Your task to perform on an android device: Go to internet settings Image 0: 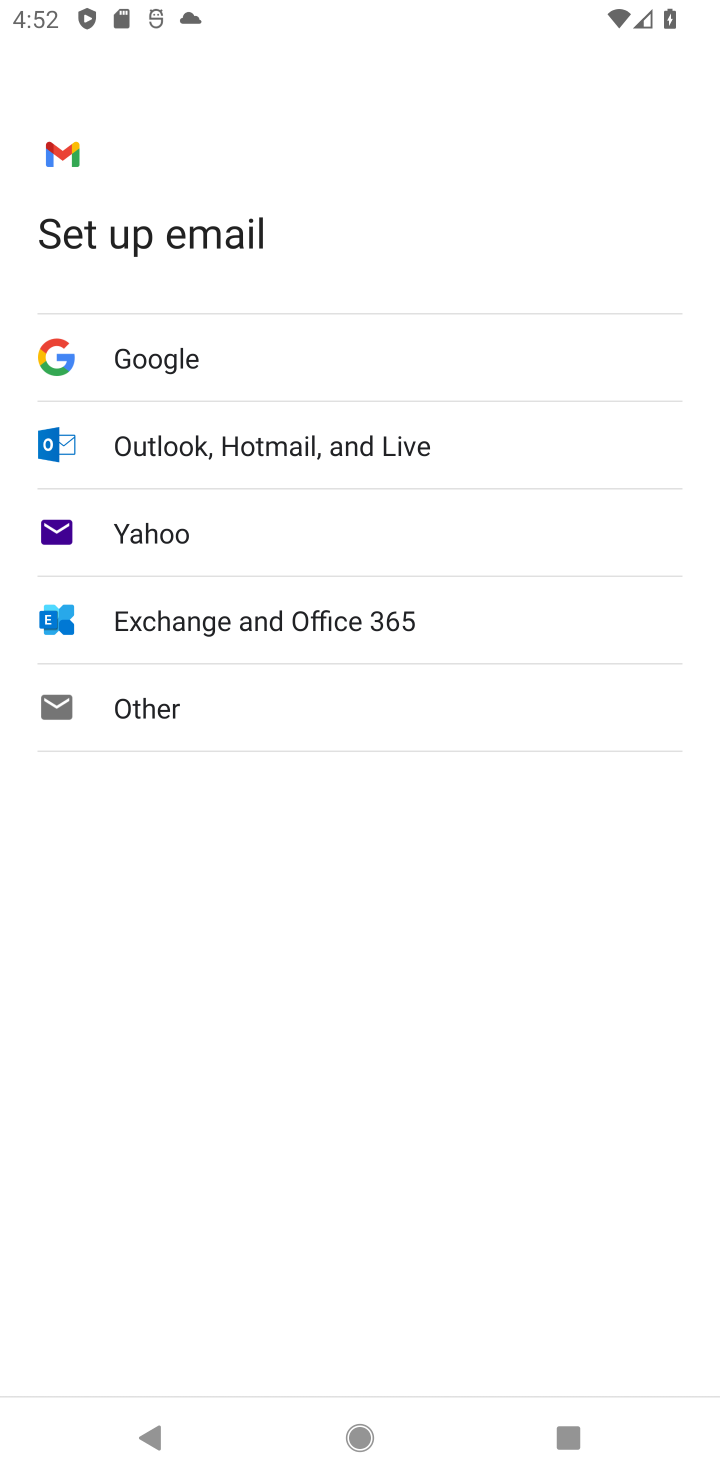
Step 0: drag from (400, 1199) to (425, 644)
Your task to perform on an android device: Go to internet settings Image 1: 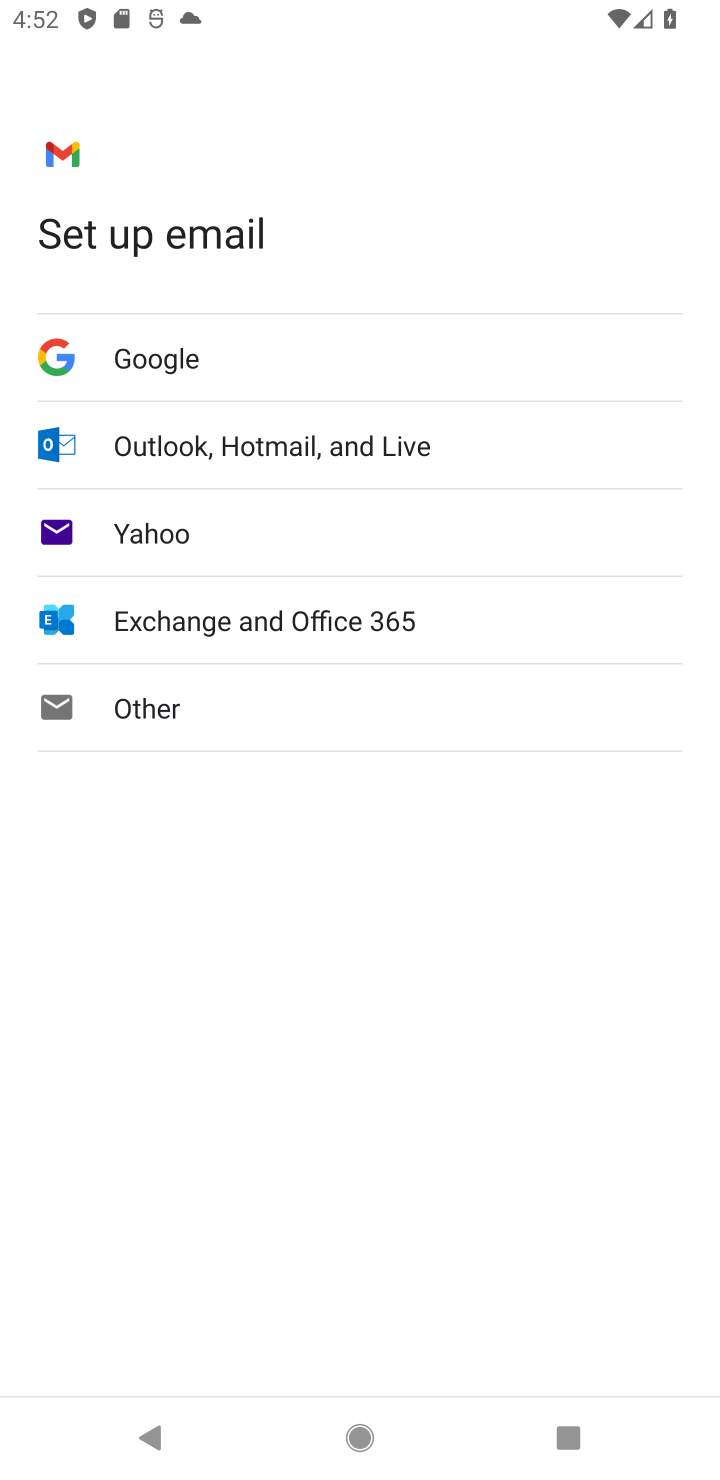
Step 1: press home button
Your task to perform on an android device: Go to internet settings Image 2: 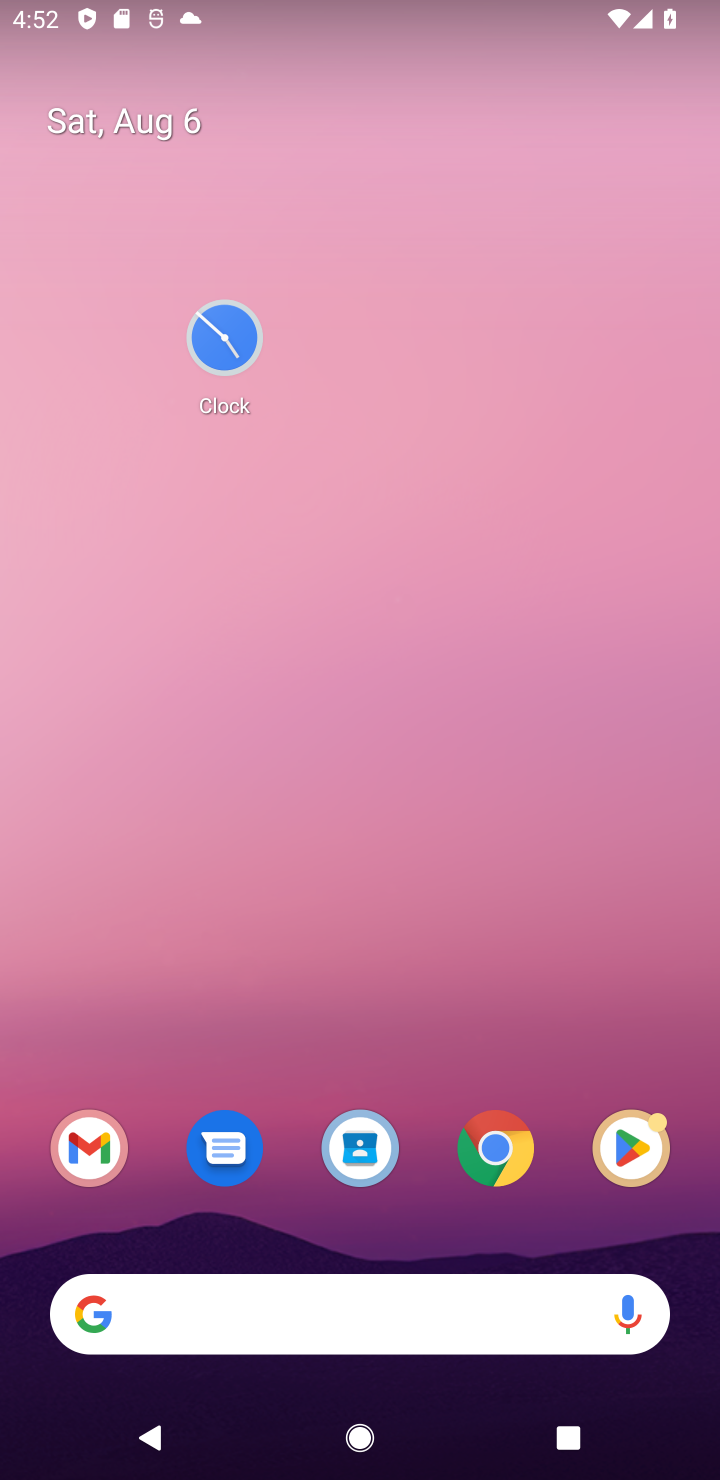
Step 2: drag from (305, 930) to (449, 337)
Your task to perform on an android device: Go to internet settings Image 3: 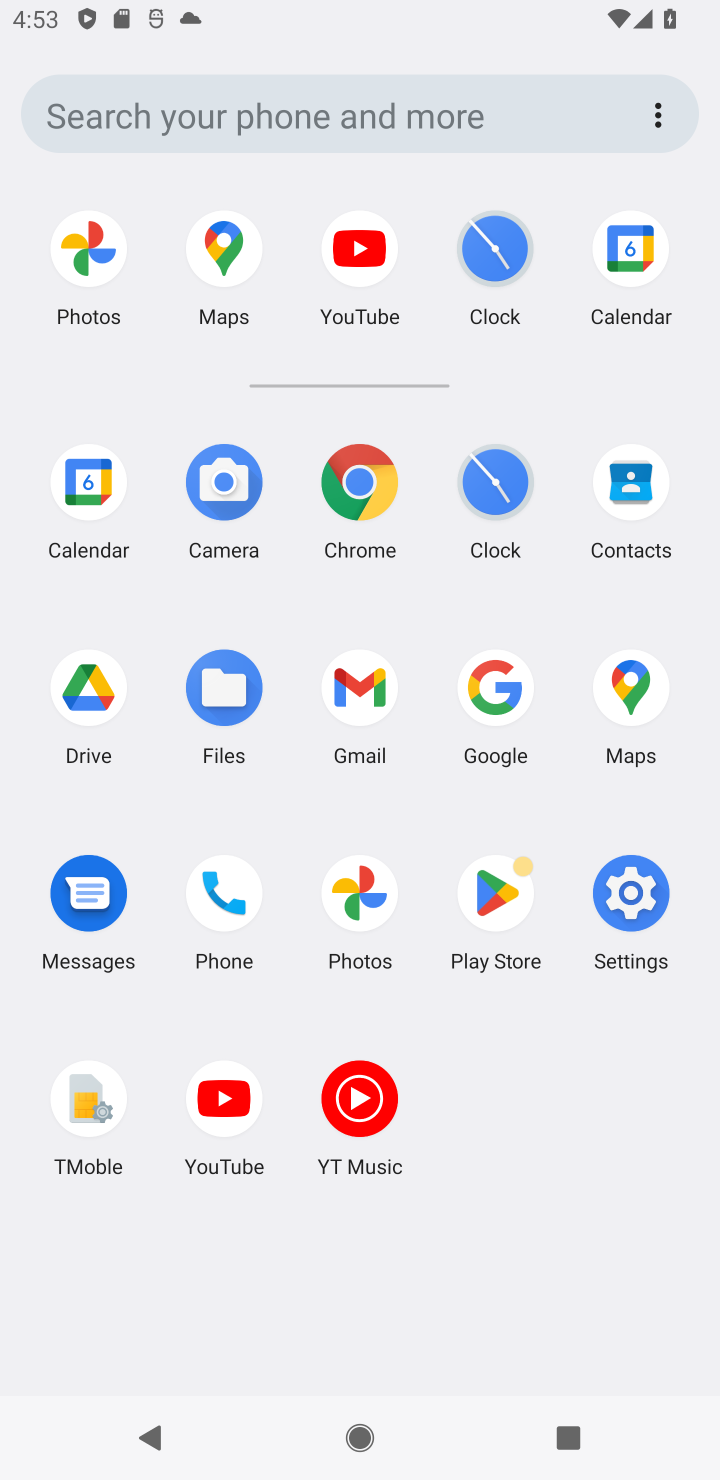
Step 3: drag from (285, 1209) to (346, 531)
Your task to perform on an android device: Go to internet settings Image 4: 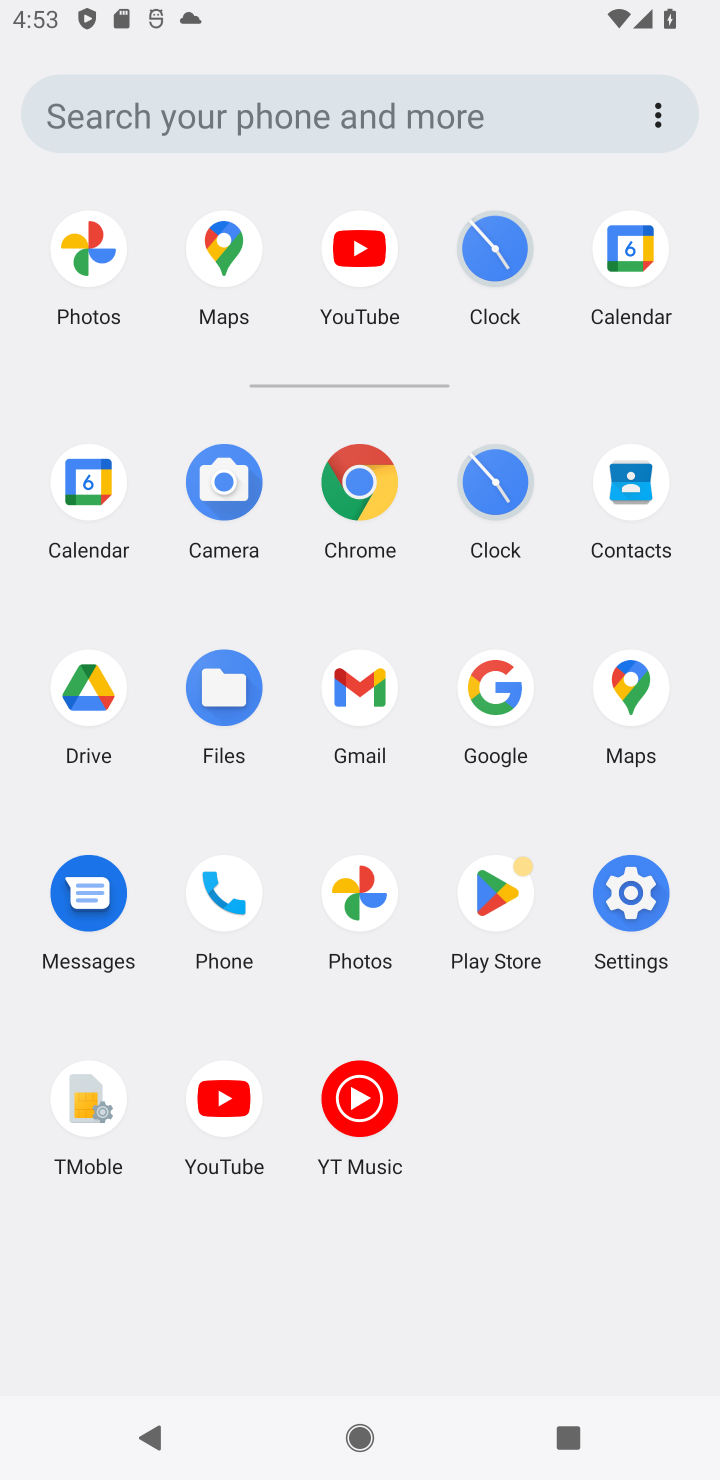
Step 4: click (618, 915)
Your task to perform on an android device: Go to internet settings Image 5: 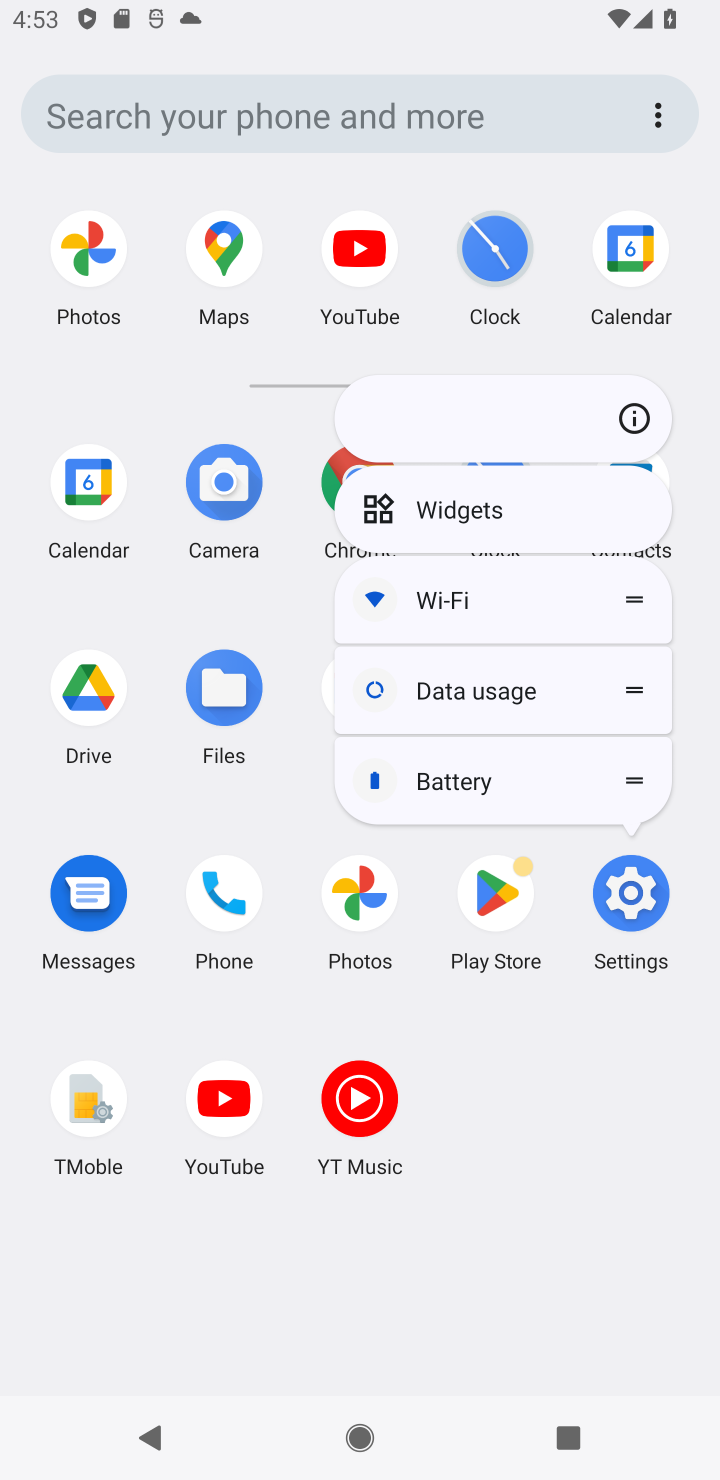
Step 5: click (620, 421)
Your task to perform on an android device: Go to internet settings Image 6: 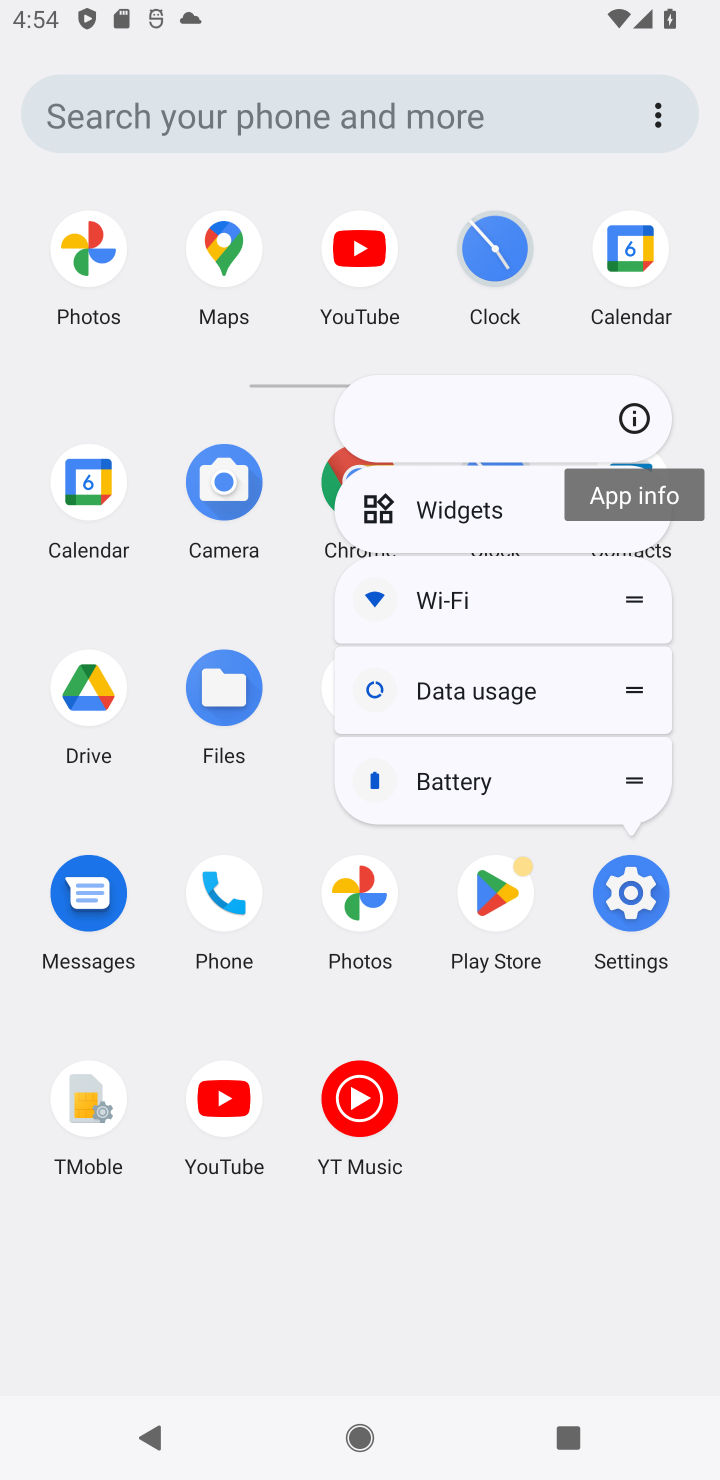
Step 6: click (620, 421)
Your task to perform on an android device: Go to internet settings Image 7: 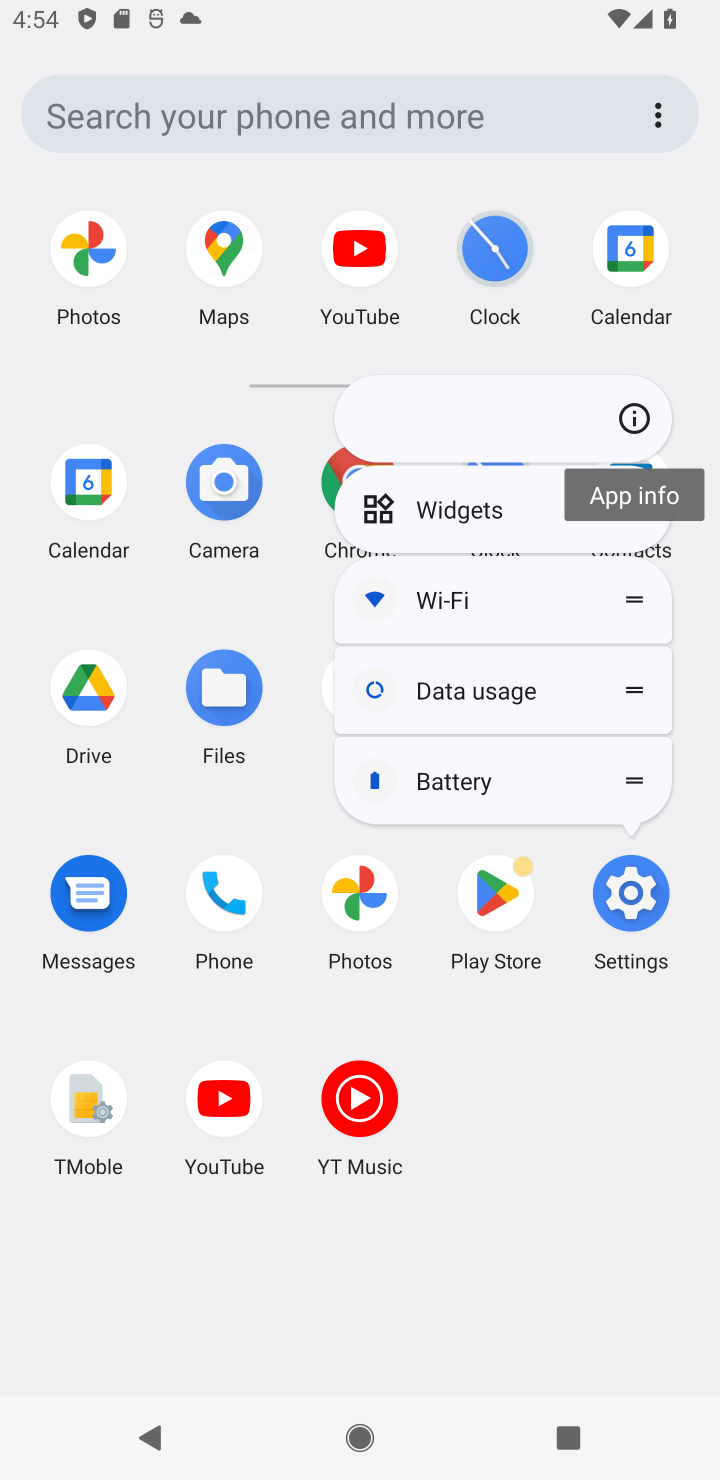
Step 7: click (622, 421)
Your task to perform on an android device: Go to internet settings Image 8: 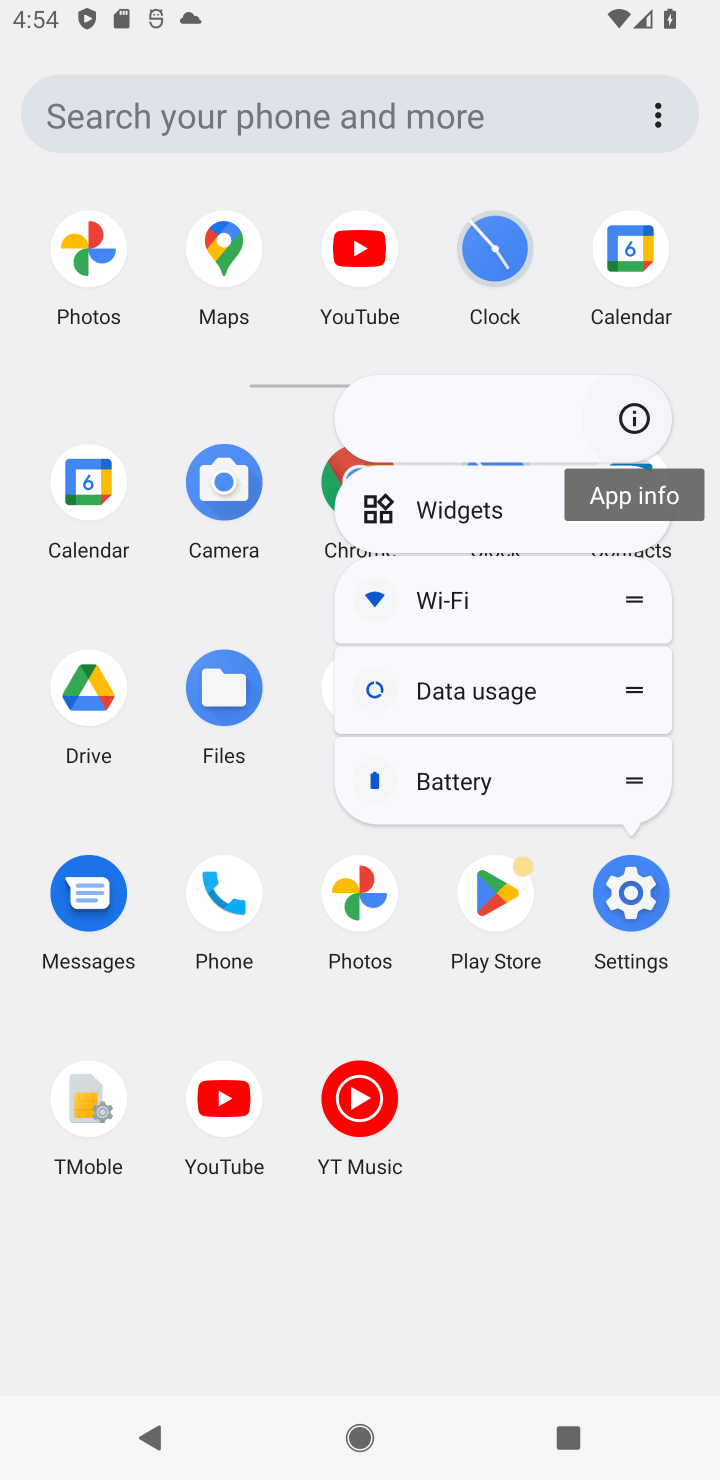
Step 8: click (624, 423)
Your task to perform on an android device: Go to internet settings Image 9: 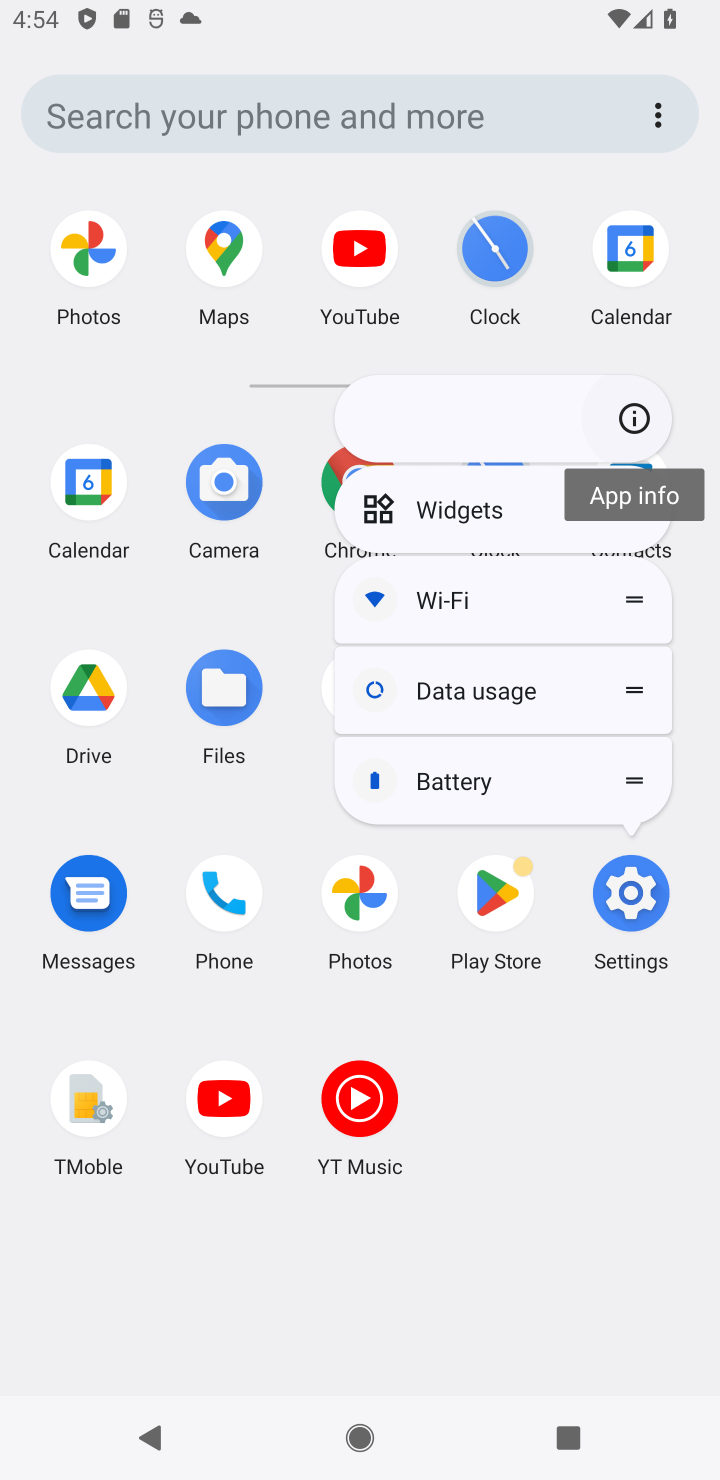
Step 9: click (614, 427)
Your task to perform on an android device: Go to internet settings Image 10: 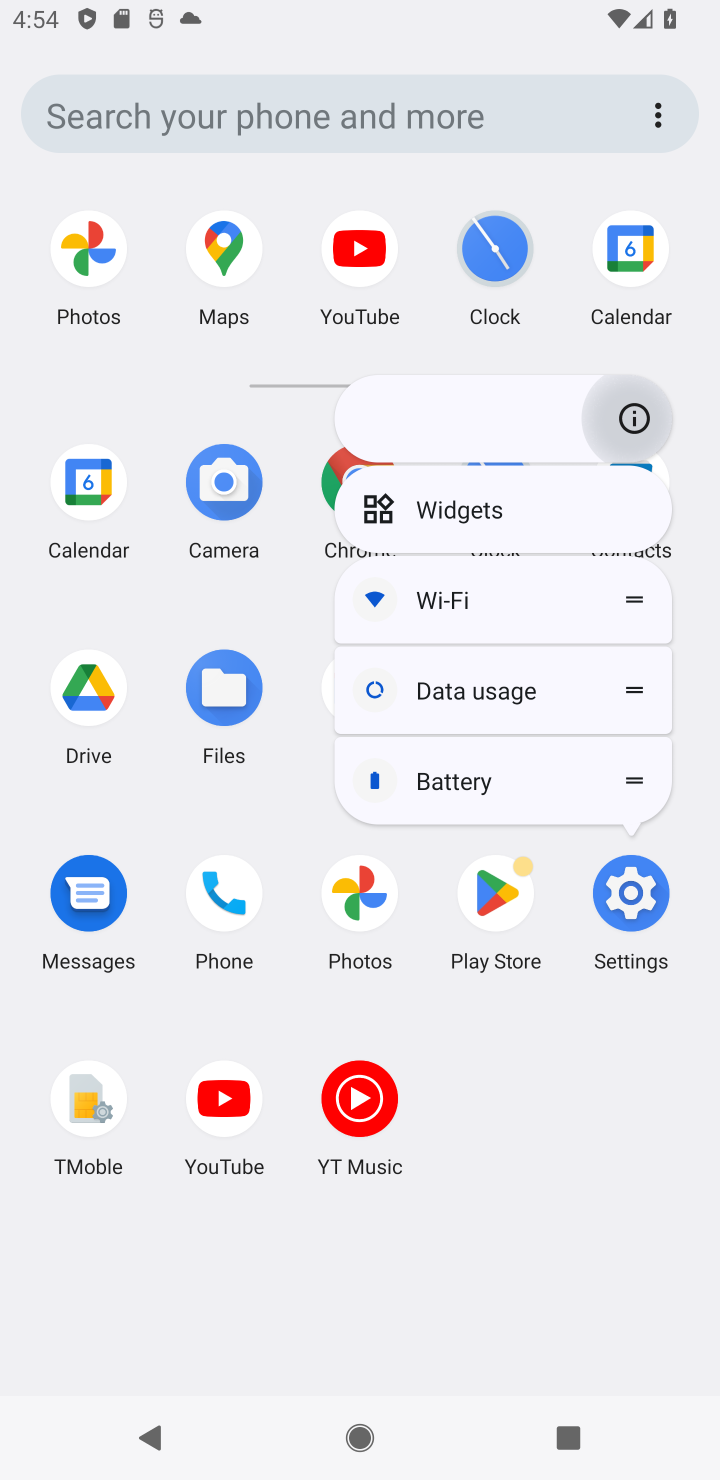
Step 10: click (621, 875)
Your task to perform on an android device: Go to internet settings Image 11: 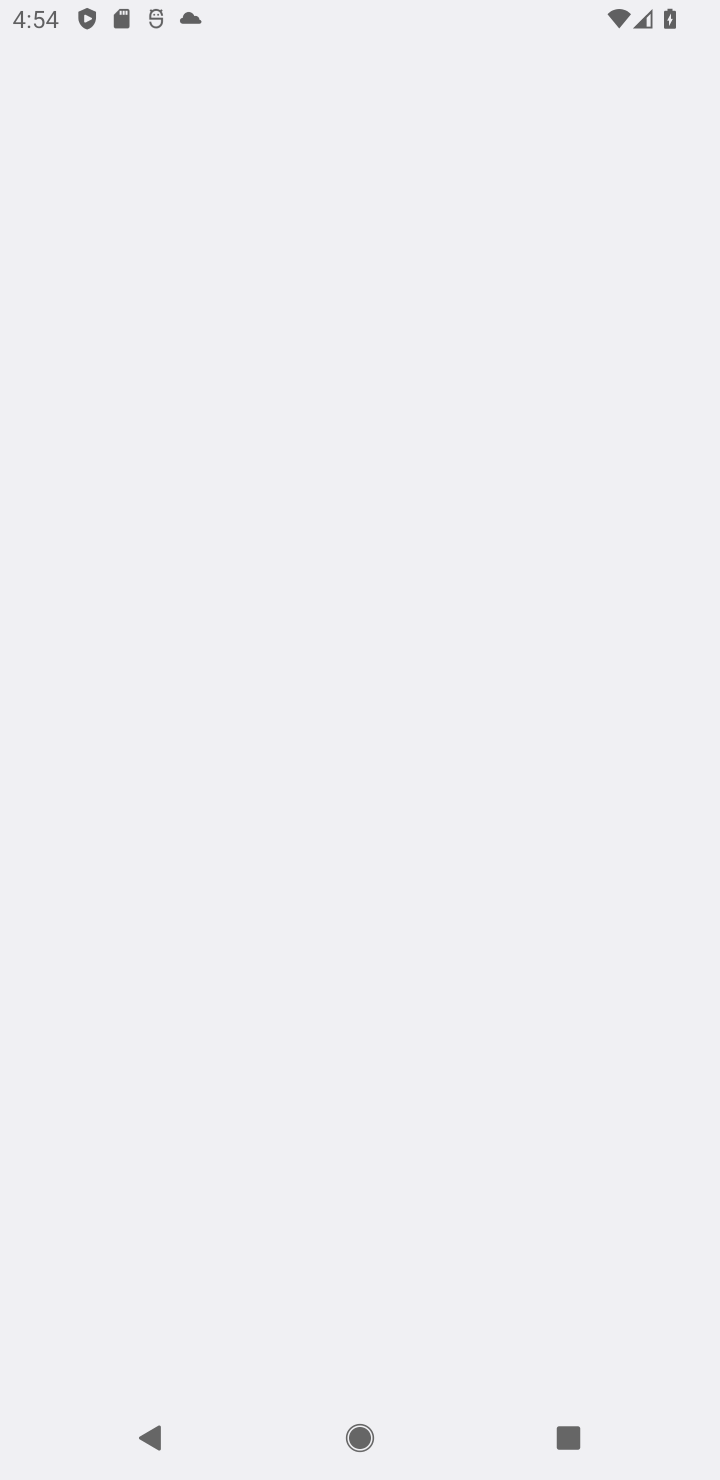
Step 11: click (630, 884)
Your task to perform on an android device: Go to internet settings Image 12: 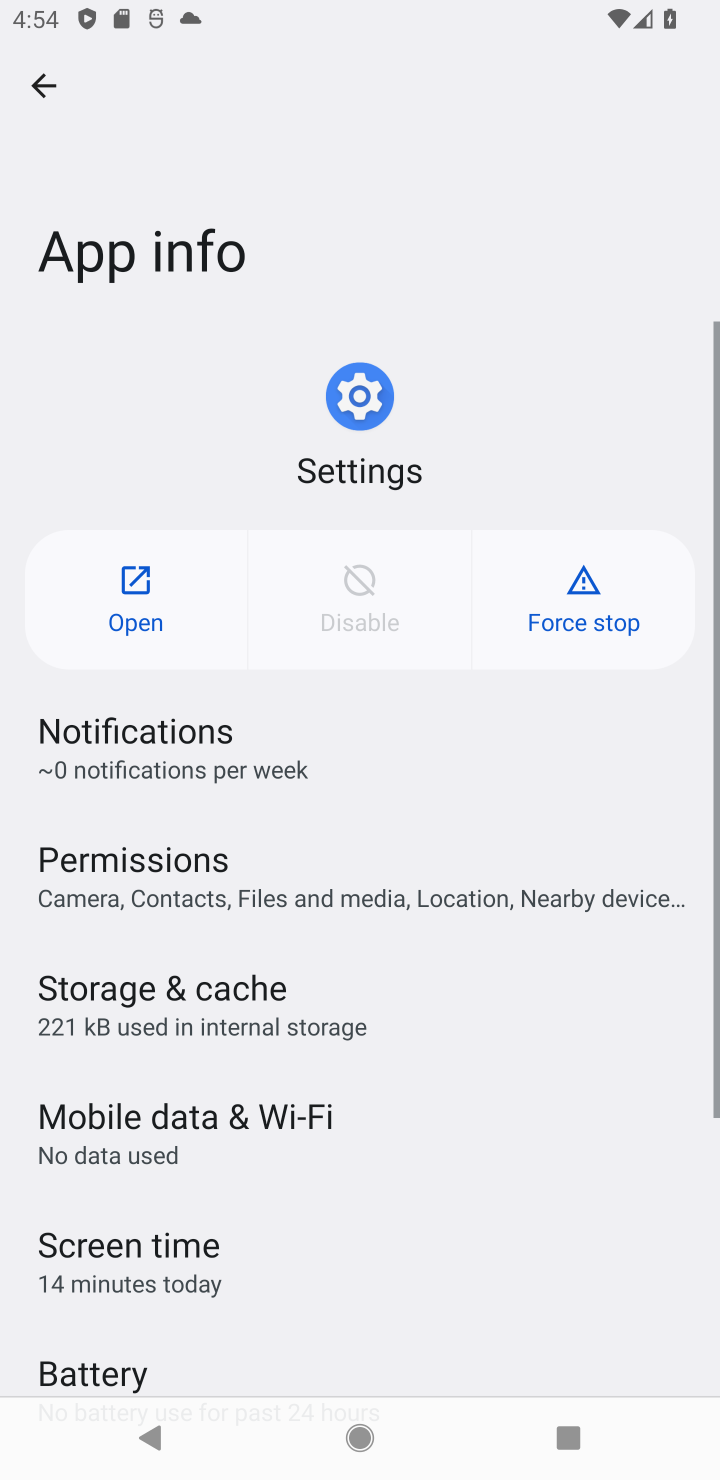
Step 12: drag from (289, 389) to (212, 1248)
Your task to perform on an android device: Go to internet settings Image 13: 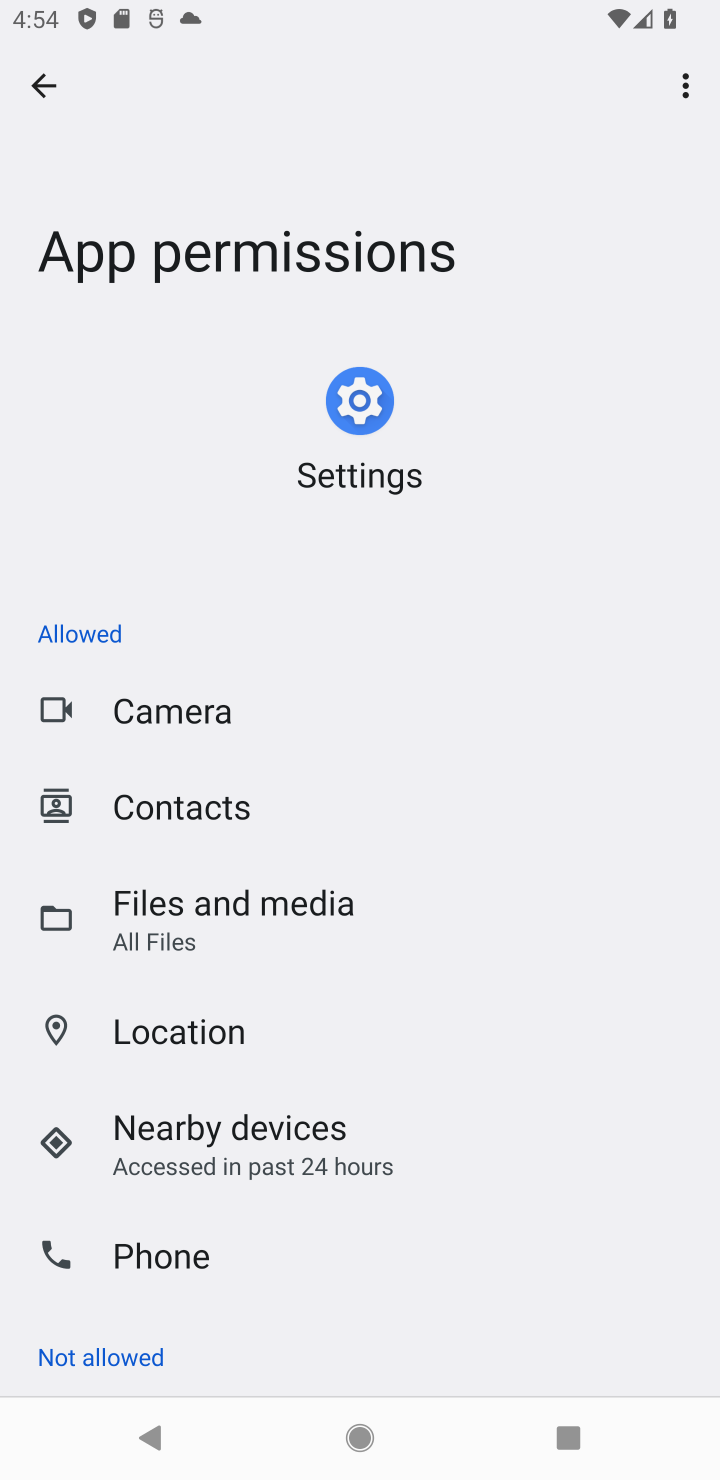
Step 13: press back button
Your task to perform on an android device: Go to internet settings Image 14: 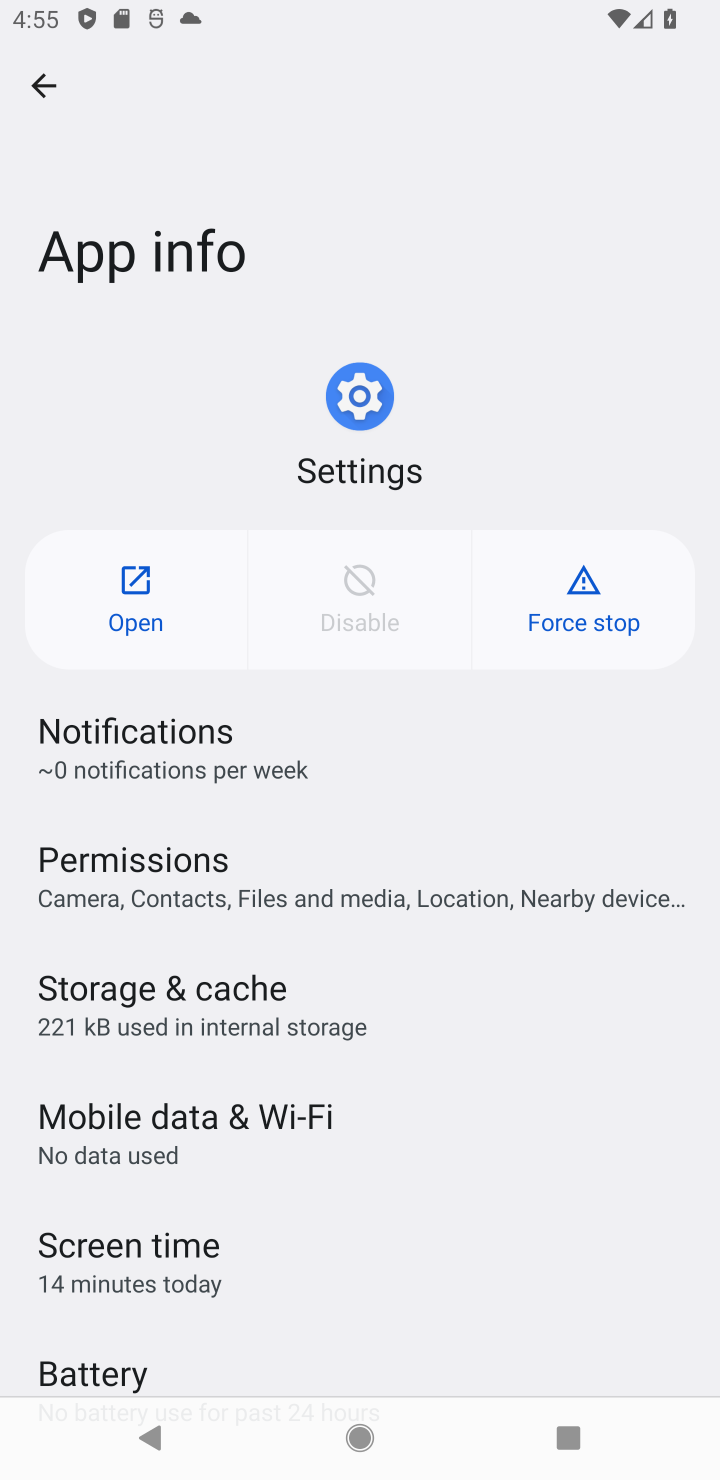
Step 14: click (106, 602)
Your task to perform on an android device: Go to internet settings Image 15: 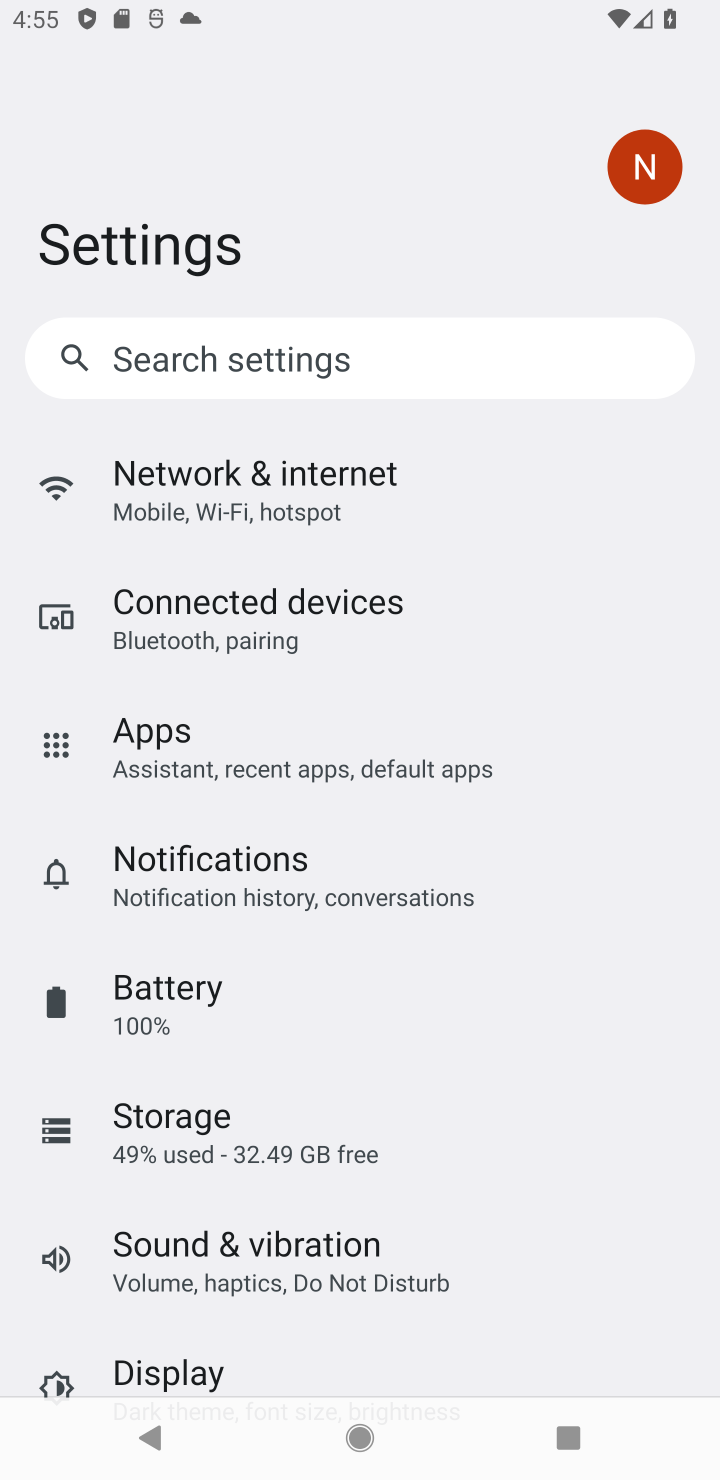
Step 15: drag from (401, 833) to (478, 188)
Your task to perform on an android device: Go to internet settings Image 16: 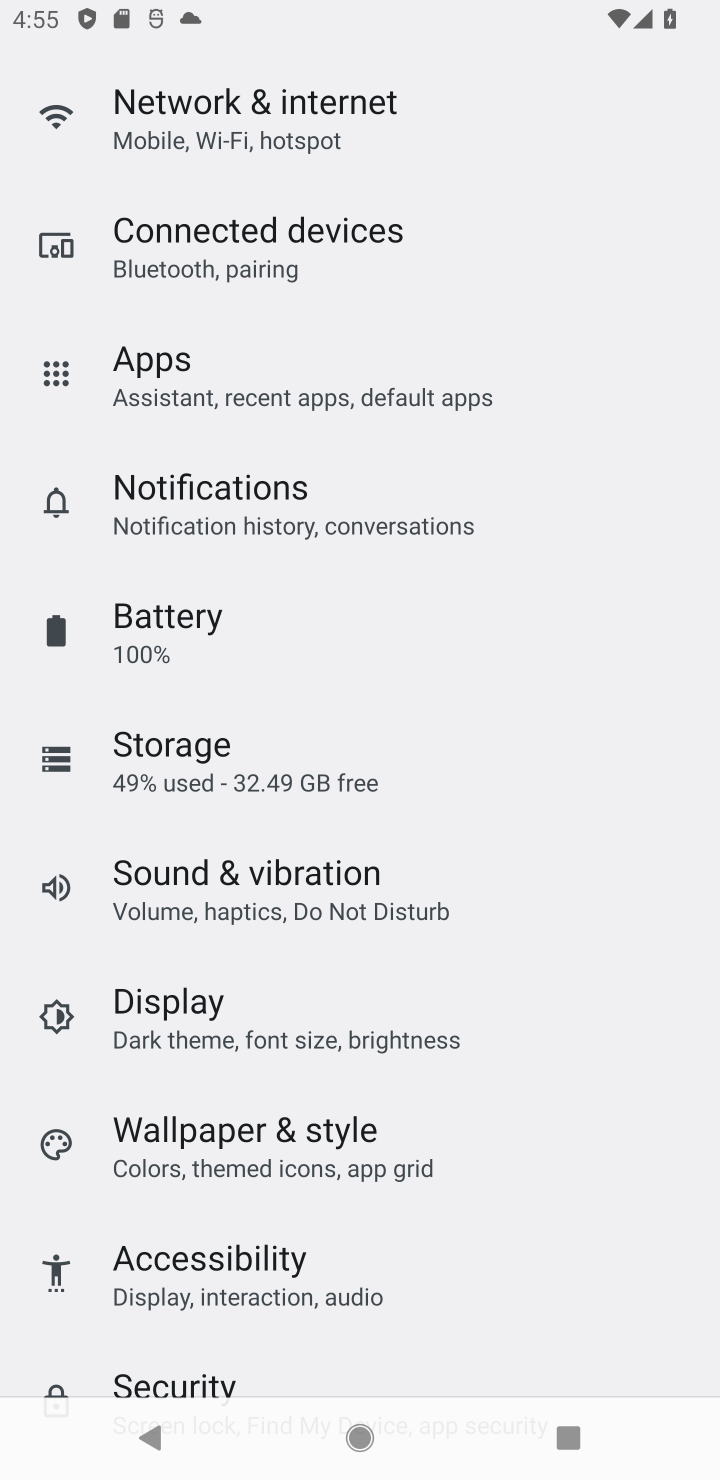
Step 16: click (251, 122)
Your task to perform on an android device: Go to internet settings Image 17: 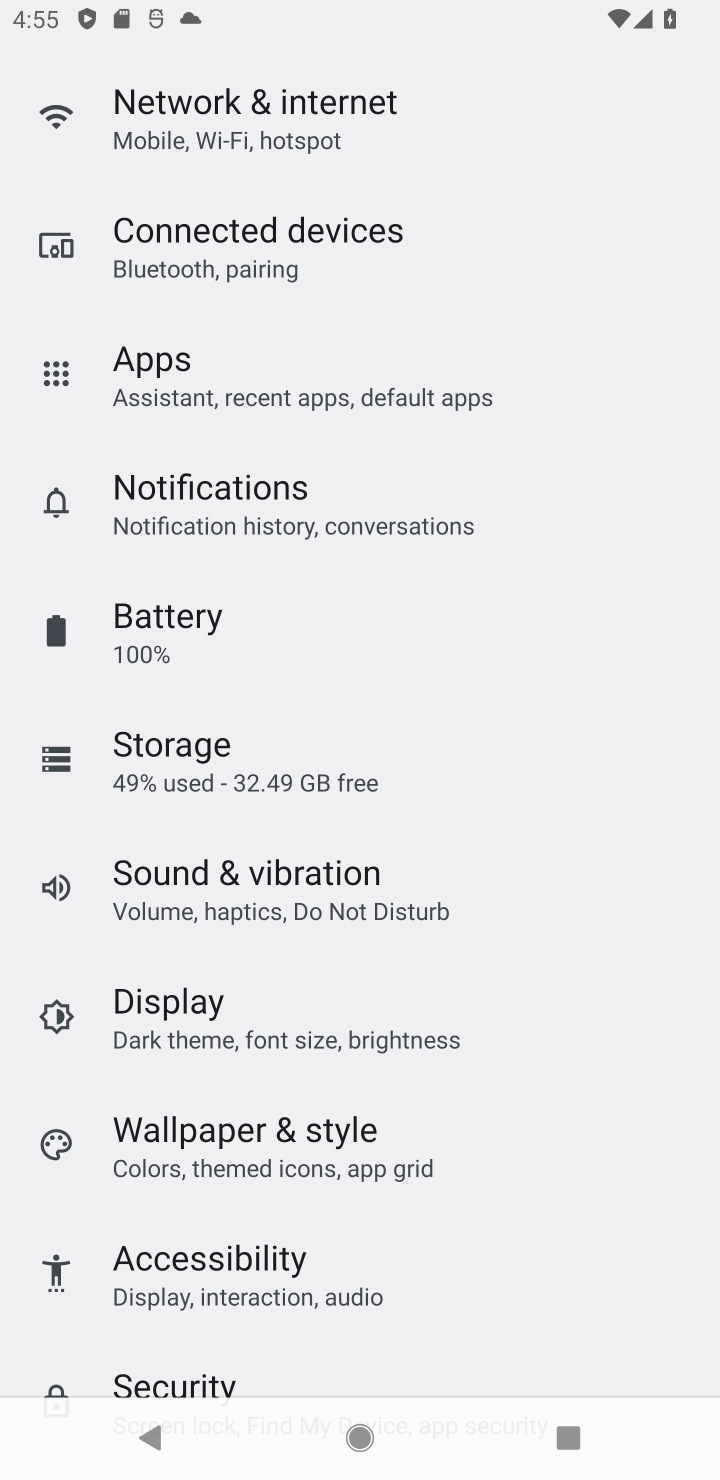
Step 17: click (251, 122)
Your task to perform on an android device: Go to internet settings Image 18: 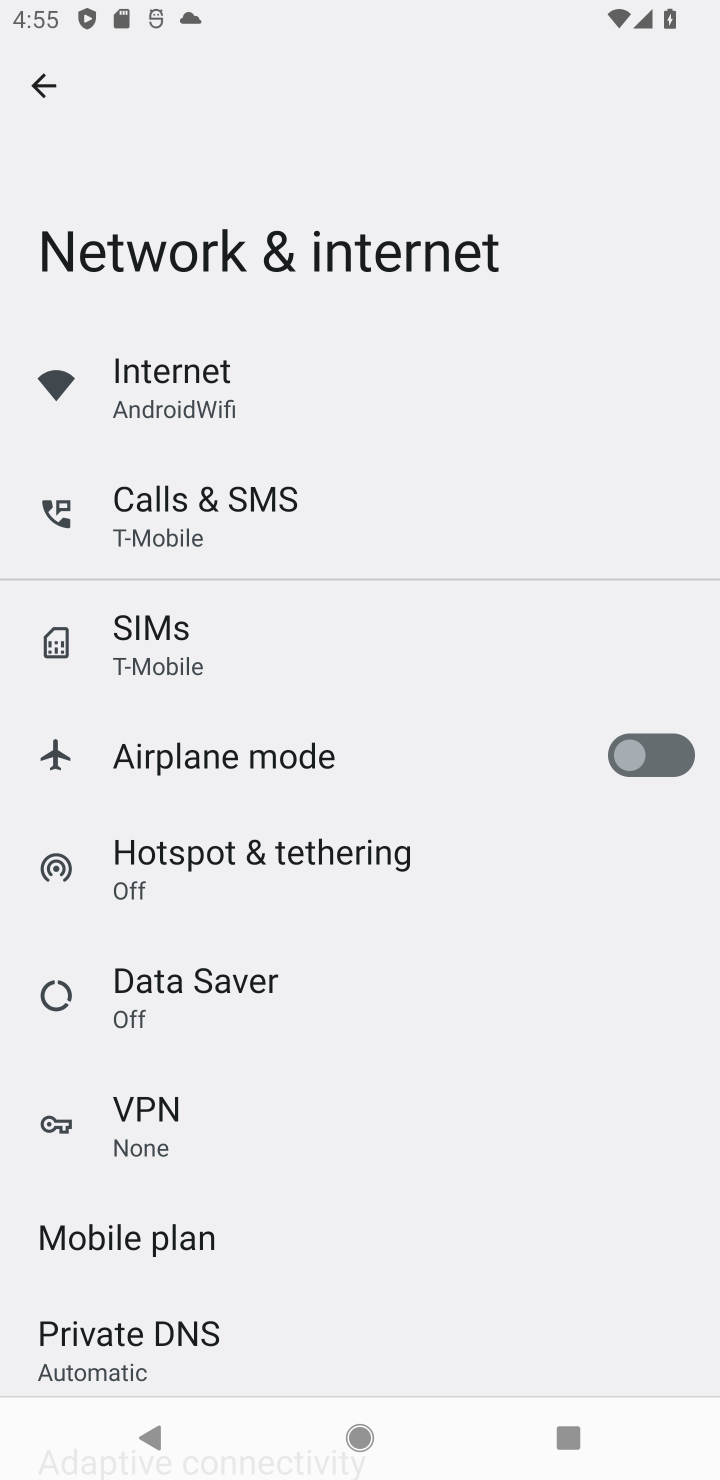
Step 18: task complete